Your task to perform on an android device: Go to eBay Image 0: 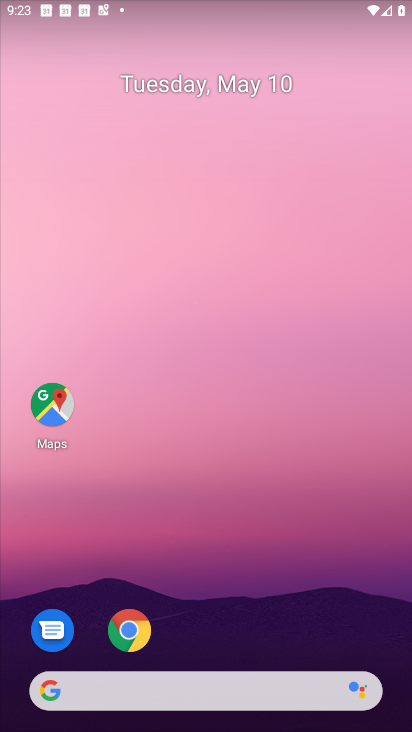
Step 0: click (228, 695)
Your task to perform on an android device: Go to eBay Image 1: 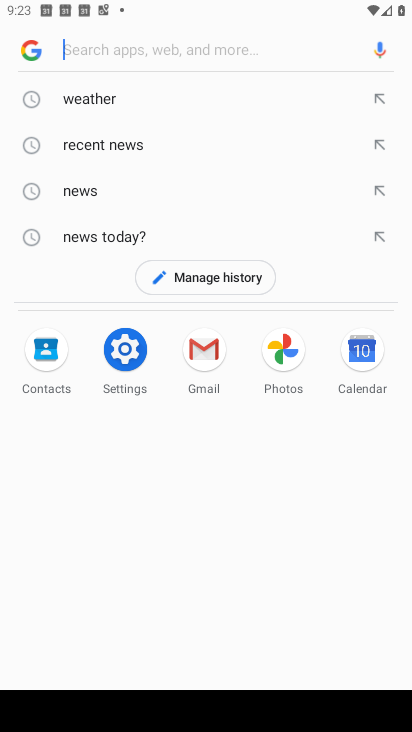
Step 1: type "ebay"
Your task to perform on an android device: Go to eBay Image 2: 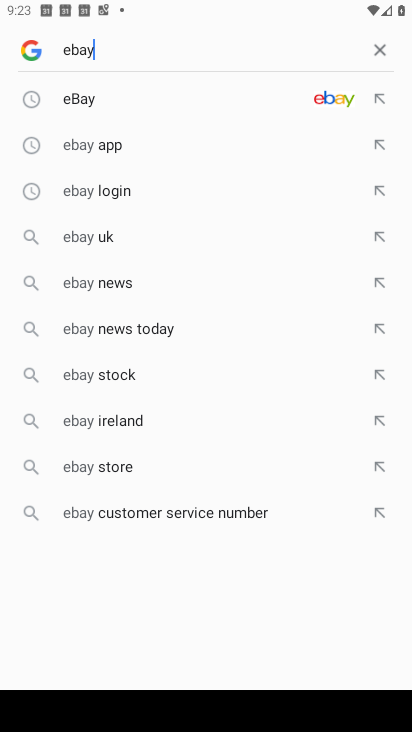
Step 2: click (328, 98)
Your task to perform on an android device: Go to eBay Image 3: 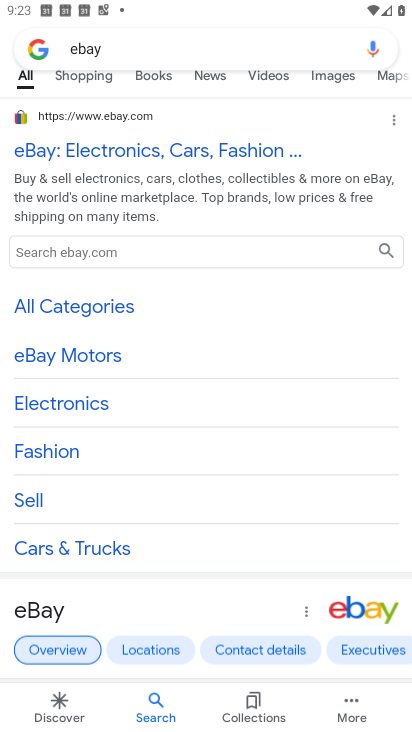
Step 3: click (115, 119)
Your task to perform on an android device: Go to eBay Image 4: 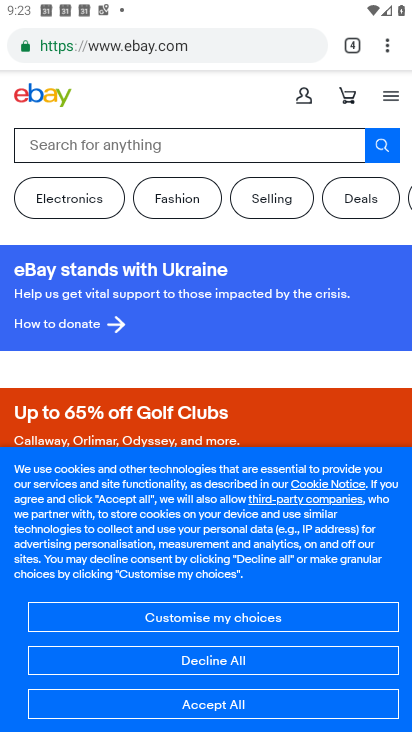
Step 4: task complete